Your task to perform on an android device: toggle notification dots Image 0: 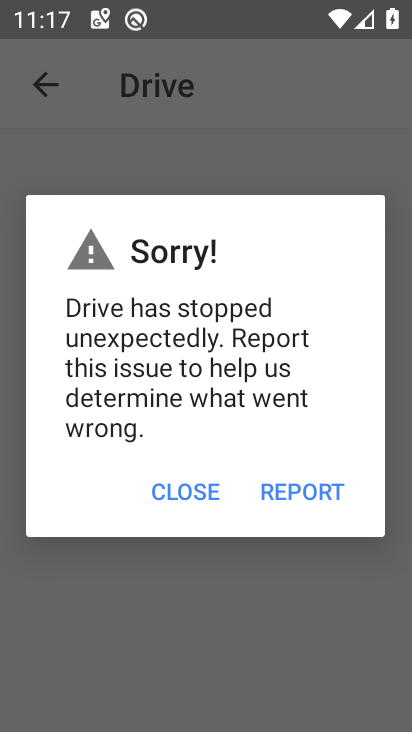
Step 0: press home button
Your task to perform on an android device: toggle notification dots Image 1: 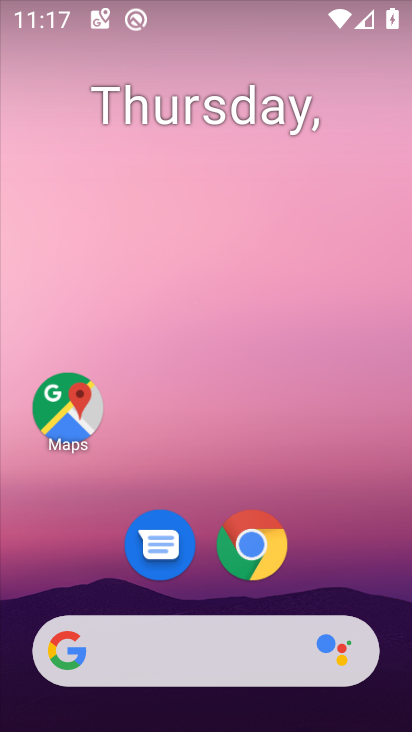
Step 1: drag from (323, 515) to (251, 14)
Your task to perform on an android device: toggle notification dots Image 2: 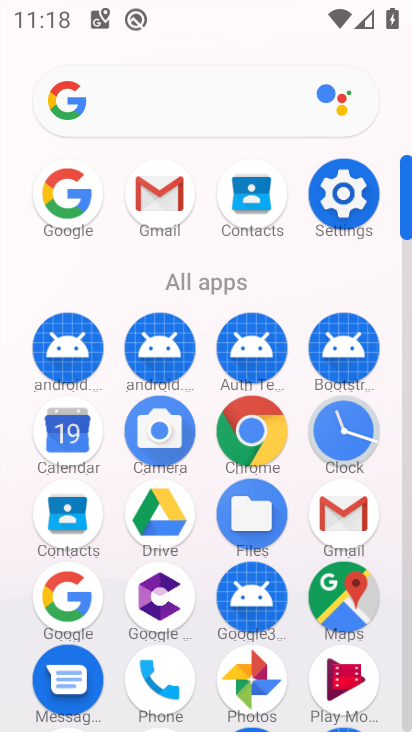
Step 2: click (386, 198)
Your task to perform on an android device: toggle notification dots Image 3: 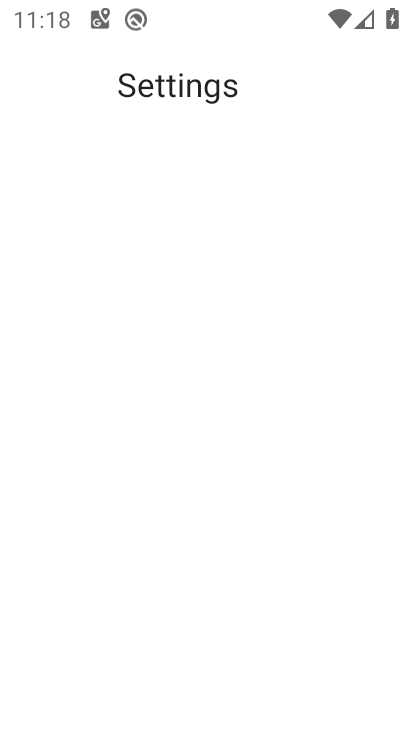
Step 3: click (365, 194)
Your task to perform on an android device: toggle notification dots Image 4: 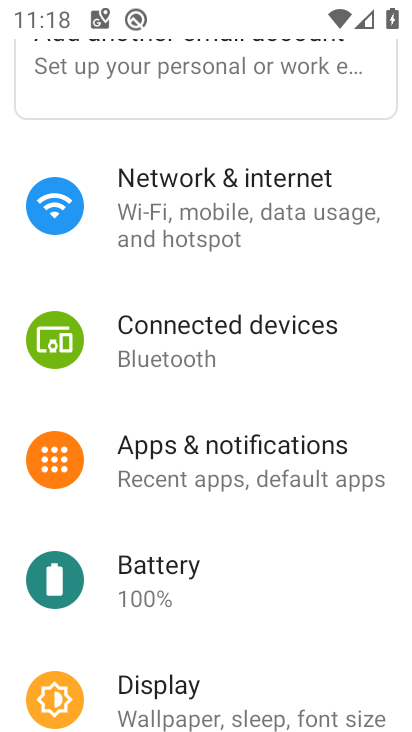
Step 4: click (189, 454)
Your task to perform on an android device: toggle notification dots Image 5: 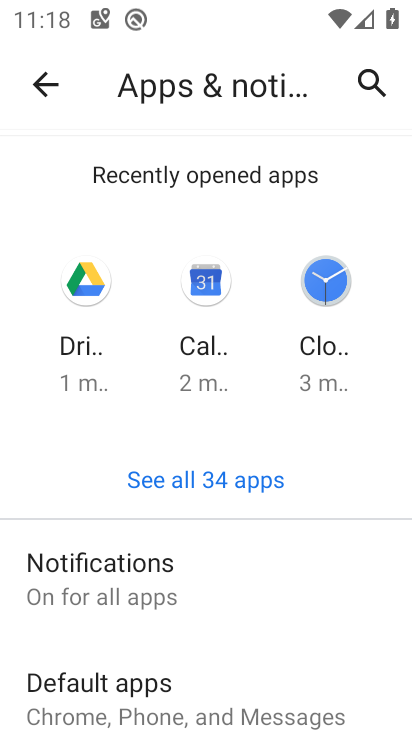
Step 5: click (143, 585)
Your task to perform on an android device: toggle notification dots Image 6: 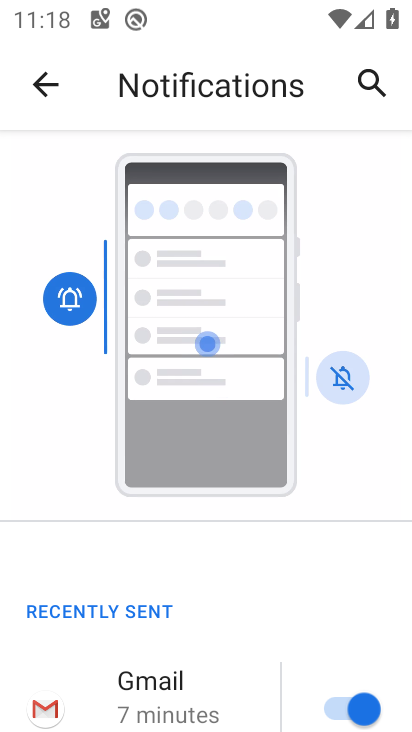
Step 6: drag from (170, 667) to (258, 46)
Your task to perform on an android device: toggle notification dots Image 7: 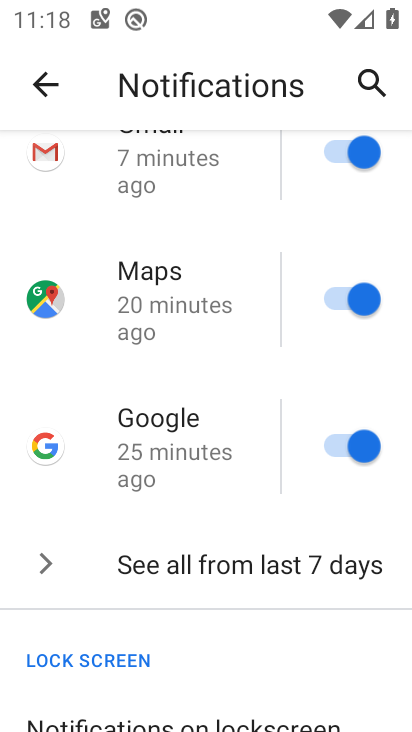
Step 7: drag from (172, 650) to (174, 200)
Your task to perform on an android device: toggle notification dots Image 8: 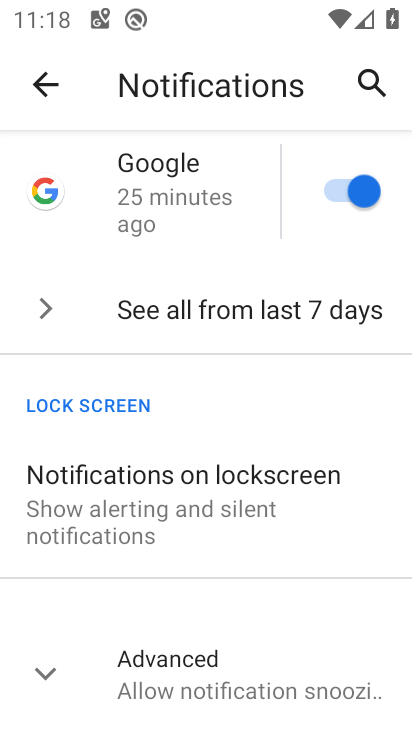
Step 8: drag from (193, 600) to (213, 209)
Your task to perform on an android device: toggle notification dots Image 9: 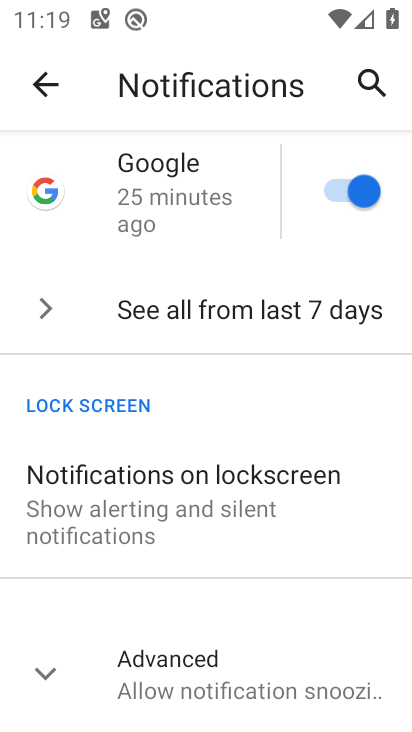
Step 9: click (206, 679)
Your task to perform on an android device: toggle notification dots Image 10: 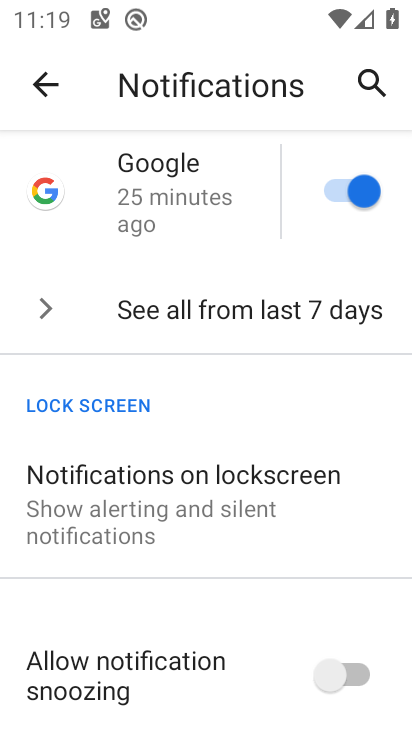
Step 10: drag from (152, 589) to (151, 247)
Your task to perform on an android device: toggle notification dots Image 11: 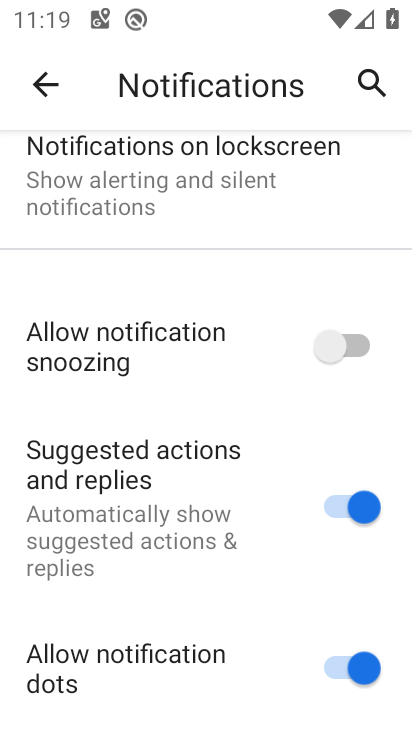
Step 11: click (348, 667)
Your task to perform on an android device: toggle notification dots Image 12: 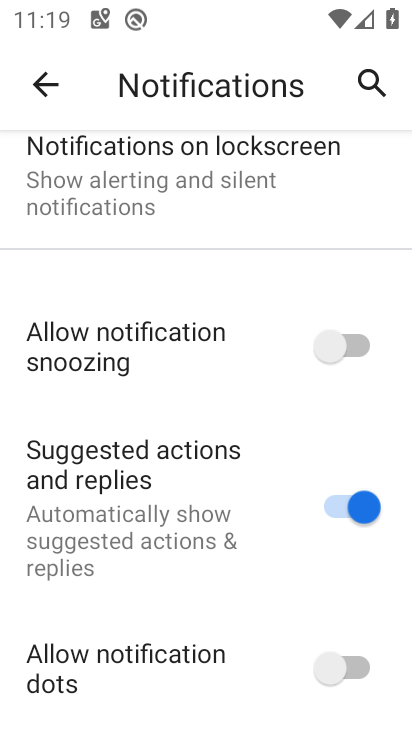
Step 12: task complete